Your task to perform on an android device: Go to sound settings Image 0: 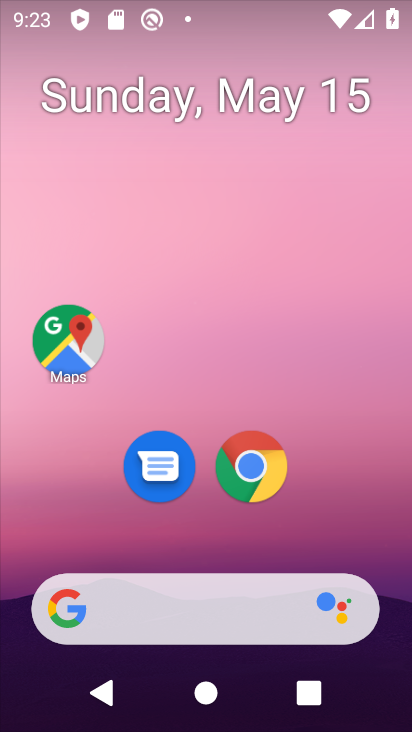
Step 0: drag from (373, 490) to (279, 70)
Your task to perform on an android device: Go to sound settings Image 1: 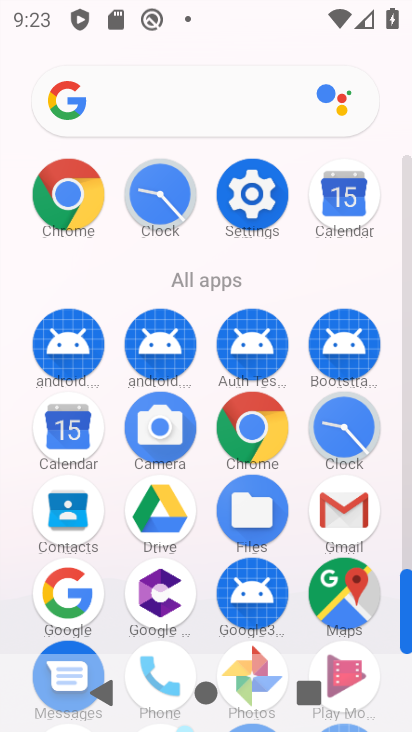
Step 1: click (255, 201)
Your task to perform on an android device: Go to sound settings Image 2: 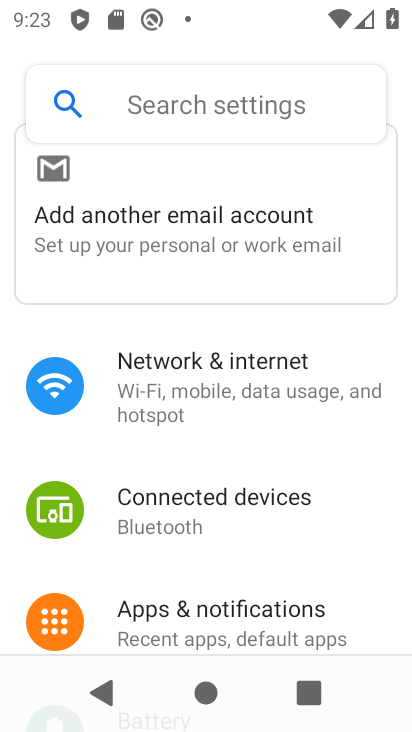
Step 2: drag from (263, 549) to (239, 12)
Your task to perform on an android device: Go to sound settings Image 3: 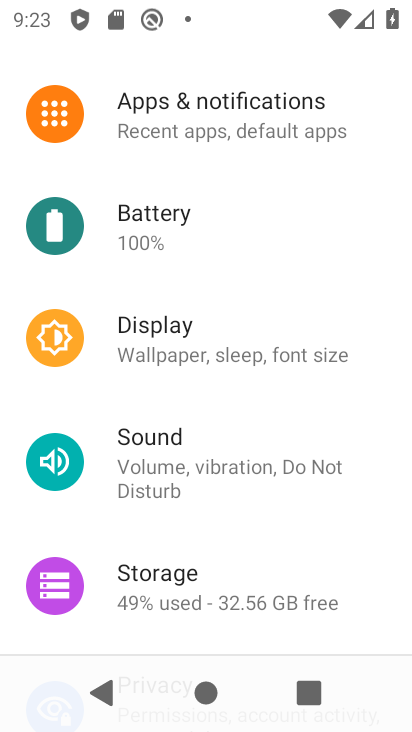
Step 3: click (193, 452)
Your task to perform on an android device: Go to sound settings Image 4: 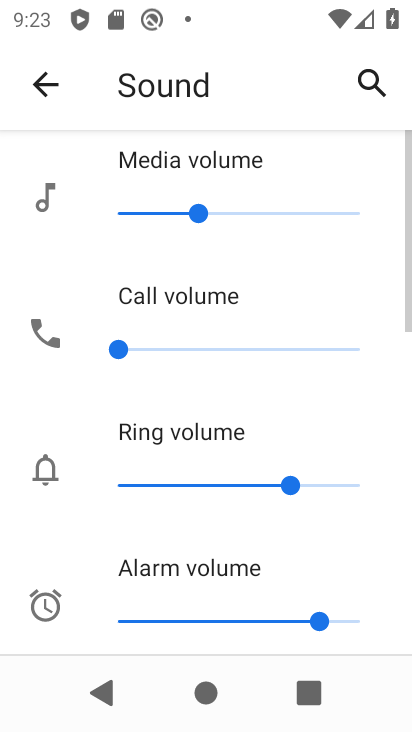
Step 4: task complete